Your task to perform on an android device: make emails show in primary in the gmail app Image 0: 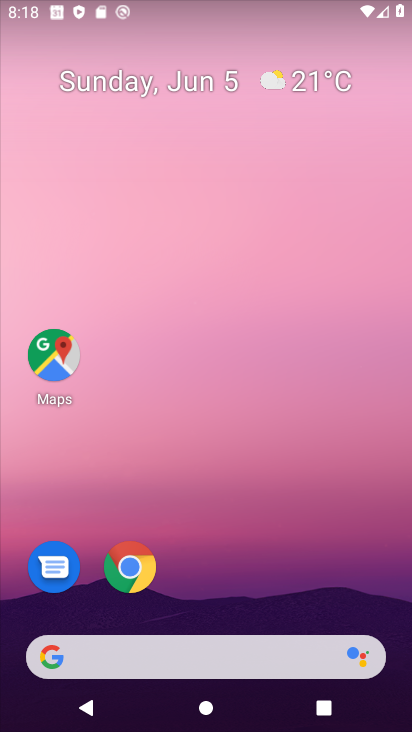
Step 0: click (236, 413)
Your task to perform on an android device: make emails show in primary in the gmail app Image 1: 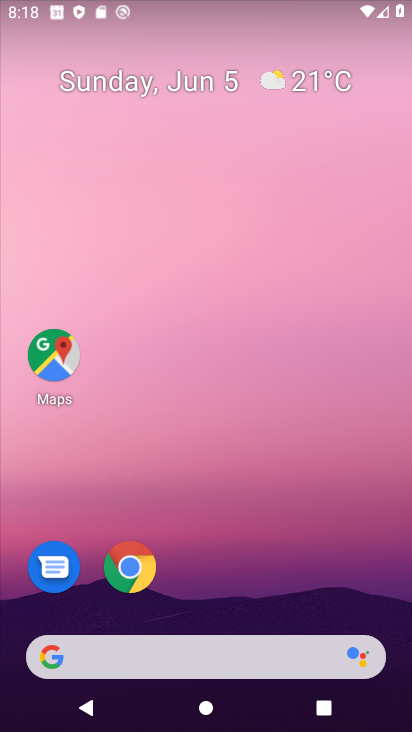
Step 1: drag from (207, 414) to (207, 291)
Your task to perform on an android device: make emails show in primary in the gmail app Image 2: 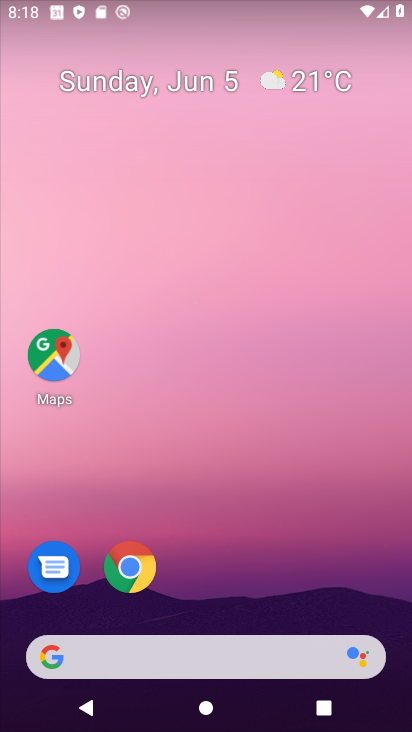
Step 2: drag from (140, 626) to (150, 376)
Your task to perform on an android device: make emails show in primary in the gmail app Image 3: 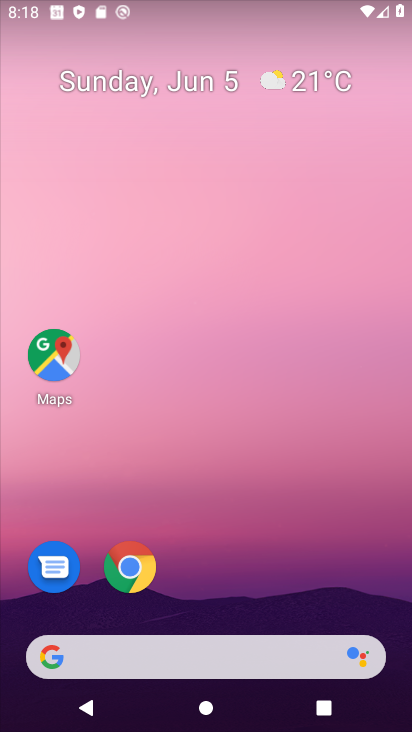
Step 3: drag from (261, 625) to (252, 142)
Your task to perform on an android device: make emails show in primary in the gmail app Image 4: 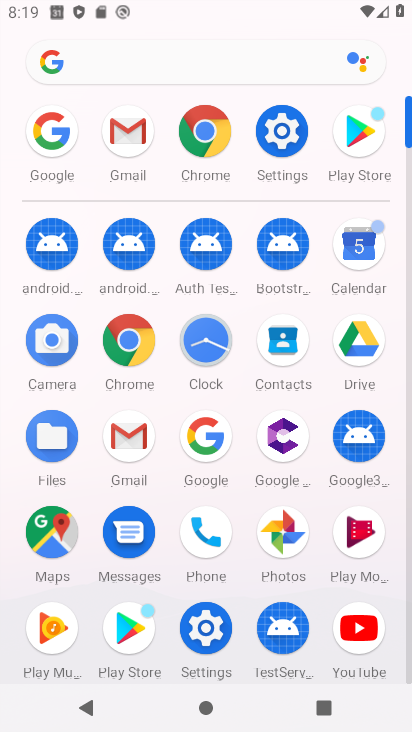
Step 4: click (121, 151)
Your task to perform on an android device: make emails show in primary in the gmail app Image 5: 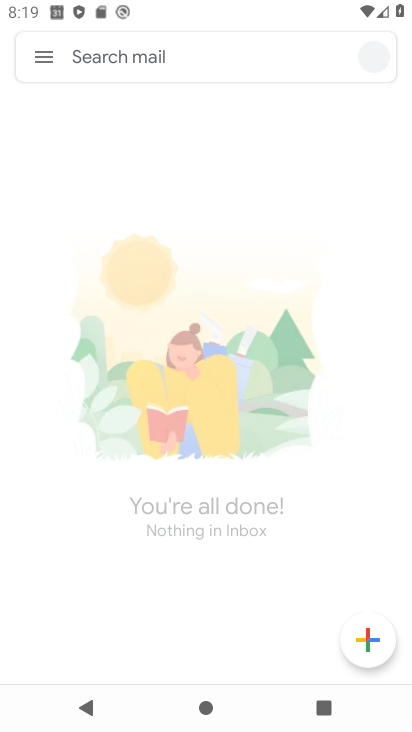
Step 5: click (39, 57)
Your task to perform on an android device: make emails show in primary in the gmail app Image 6: 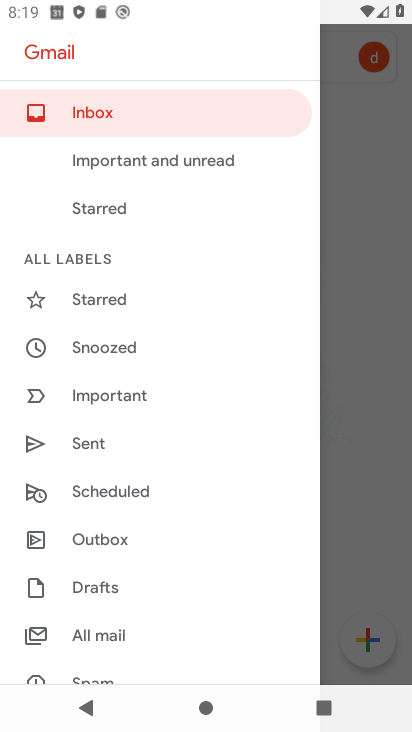
Step 6: drag from (87, 664) to (81, 371)
Your task to perform on an android device: make emails show in primary in the gmail app Image 7: 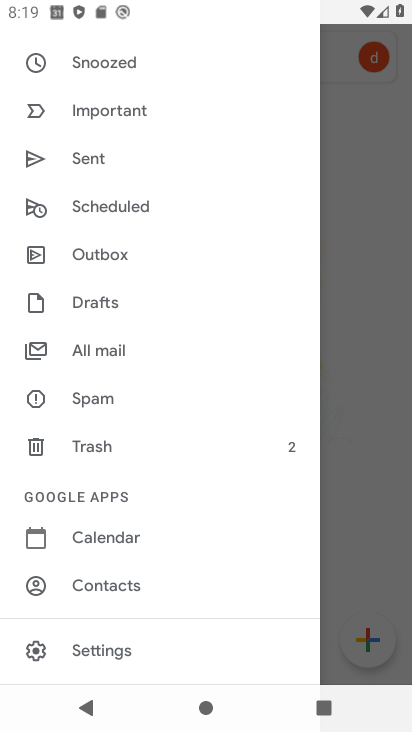
Step 7: click (121, 648)
Your task to perform on an android device: make emails show in primary in the gmail app Image 8: 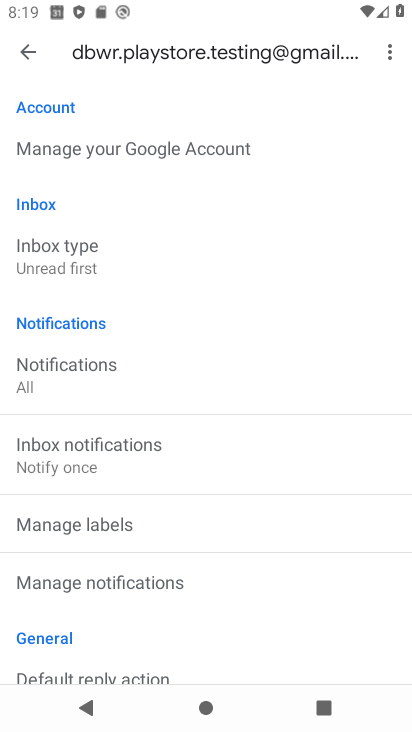
Step 8: click (58, 267)
Your task to perform on an android device: make emails show in primary in the gmail app Image 9: 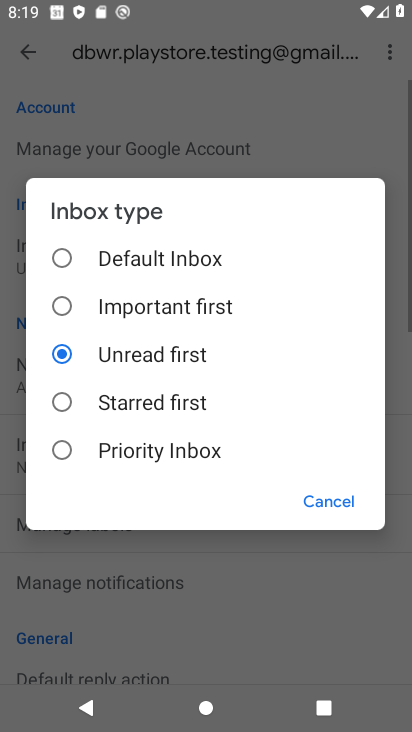
Step 9: click (98, 262)
Your task to perform on an android device: make emails show in primary in the gmail app Image 10: 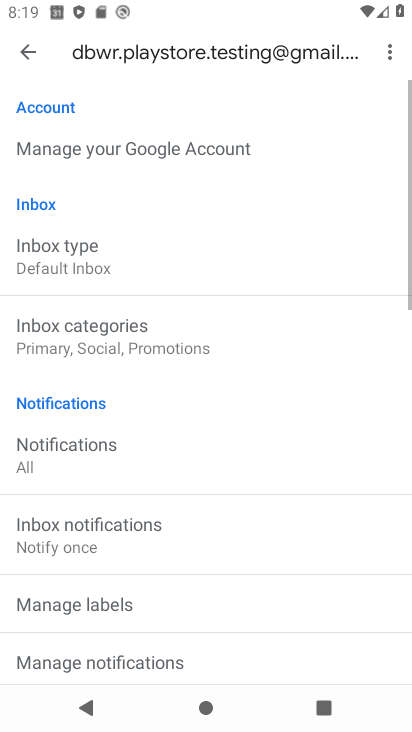
Step 10: click (80, 353)
Your task to perform on an android device: make emails show in primary in the gmail app Image 11: 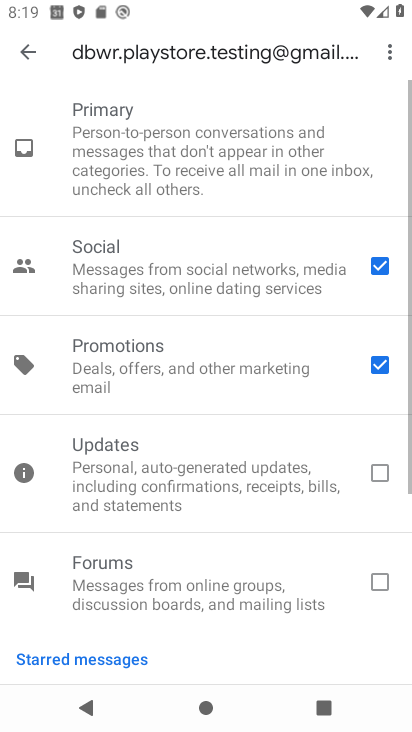
Step 11: click (384, 361)
Your task to perform on an android device: make emails show in primary in the gmail app Image 12: 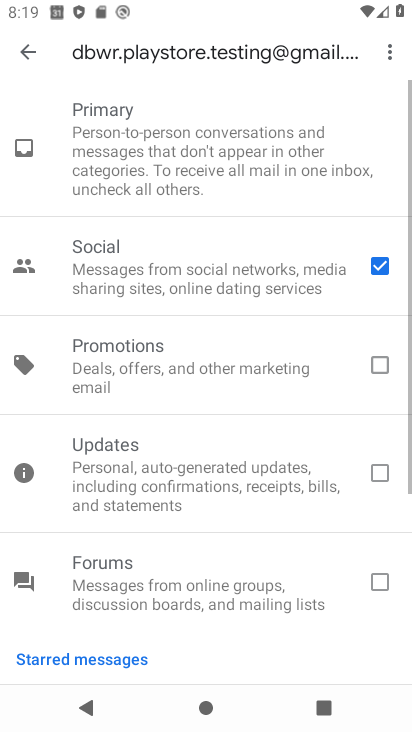
Step 12: click (382, 265)
Your task to perform on an android device: make emails show in primary in the gmail app Image 13: 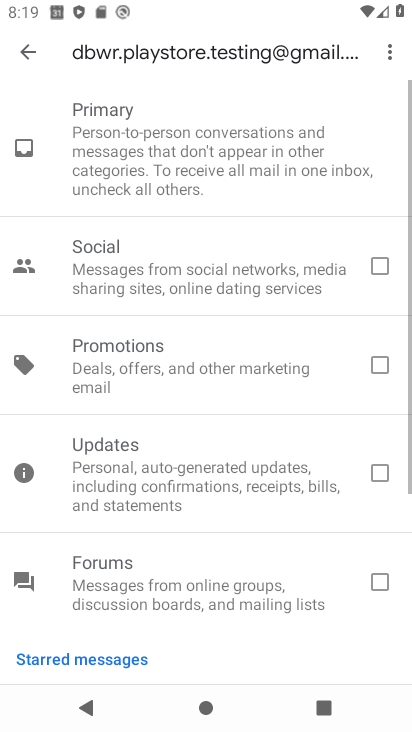
Step 13: click (34, 51)
Your task to perform on an android device: make emails show in primary in the gmail app Image 14: 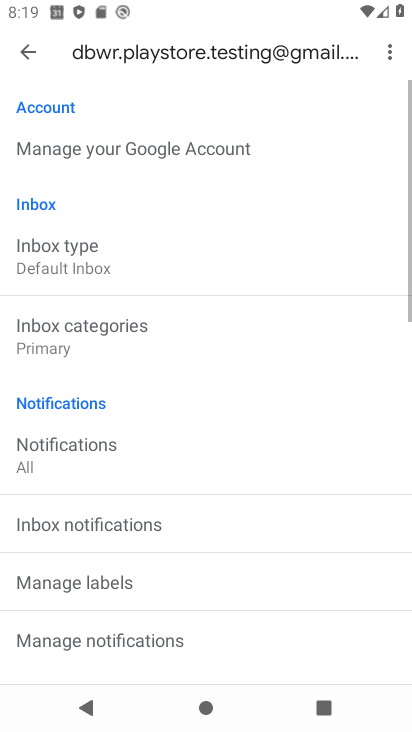
Step 14: task complete